Your task to perform on an android device: open a bookmark in the chrome app Image 0: 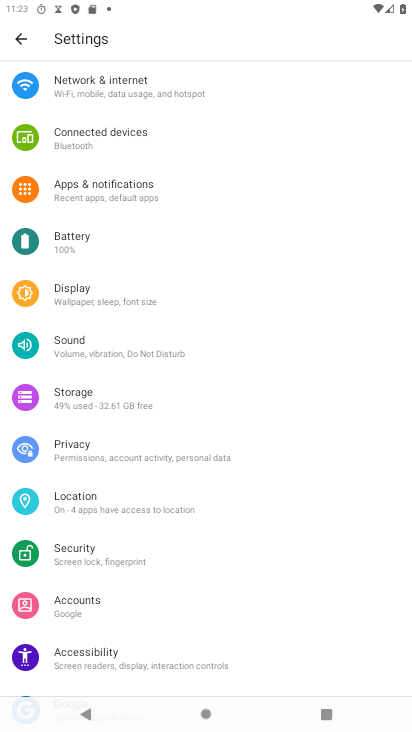
Step 0: press home button
Your task to perform on an android device: open a bookmark in the chrome app Image 1: 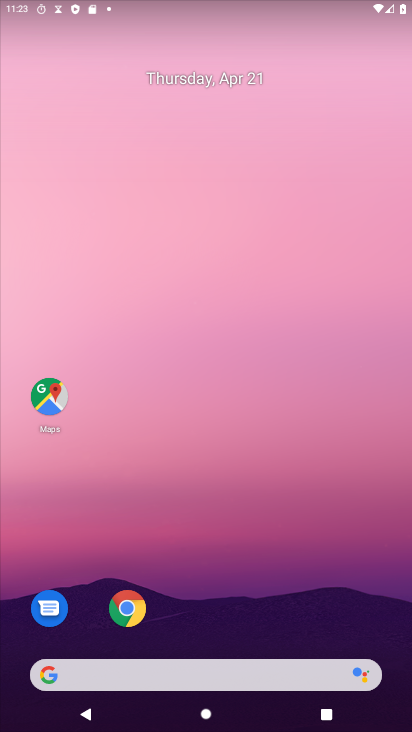
Step 1: click (121, 607)
Your task to perform on an android device: open a bookmark in the chrome app Image 2: 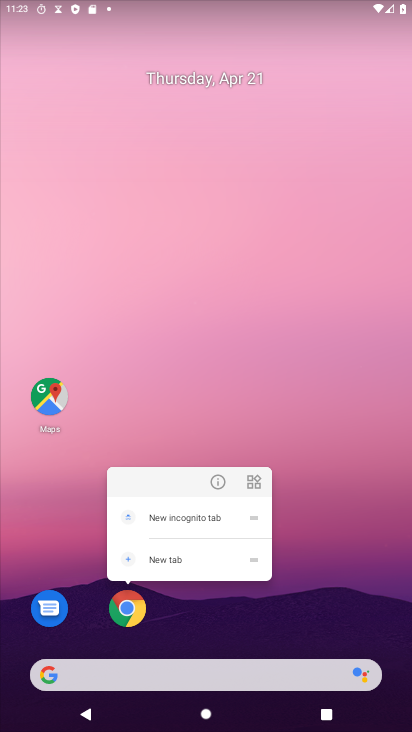
Step 2: click (224, 477)
Your task to perform on an android device: open a bookmark in the chrome app Image 3: 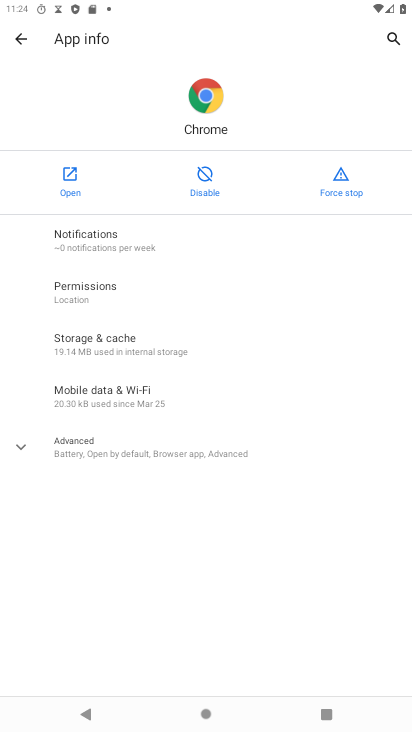
Step 3: click (76, 186)
Your task to perform on an android device: open a bookmark in the chrome app Image 4: 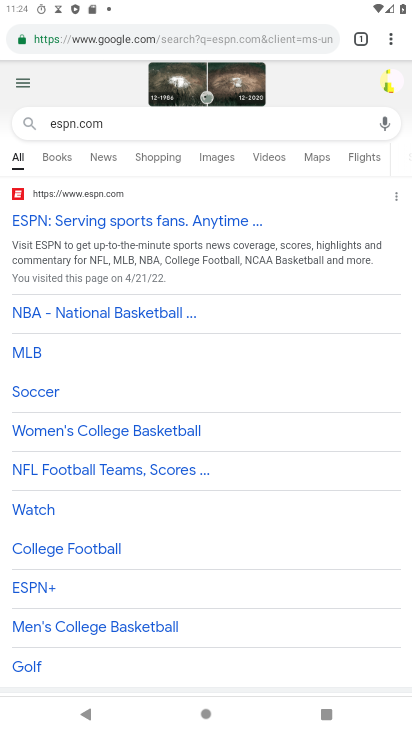
Step 4: click (389, 39)
Your task to perform on an android device: open a bookmark in the chrome app Image 5: 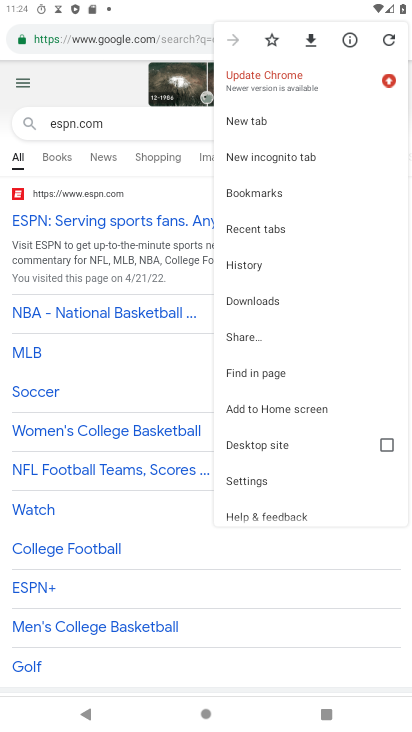
Step 5: click (320, 192)
Your task to perform on an android device: open a bookmark in the chrome app Image 6: 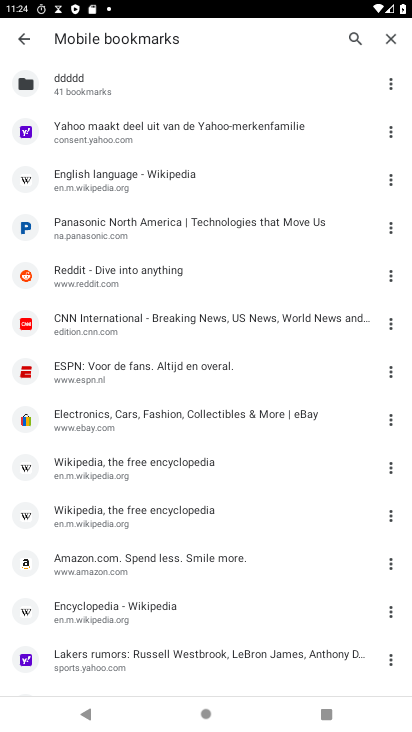
Step 6: task complete